Your task to perform on an android device: Open CNN.com Image 0: 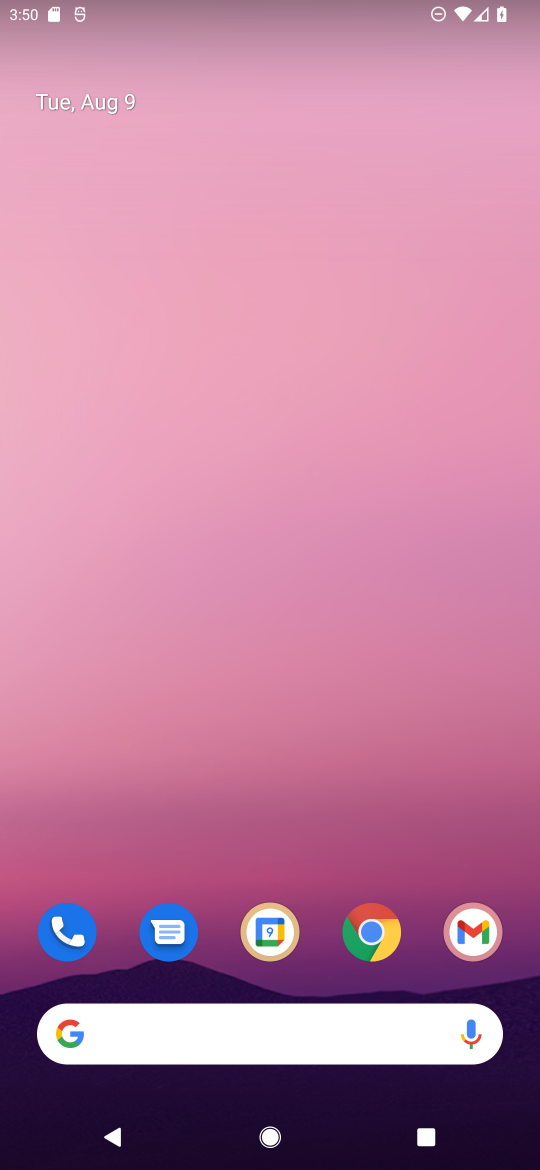
Step 0: click (116, 1016)
Your task to perform on an android device: Open CNN.com Image 1: 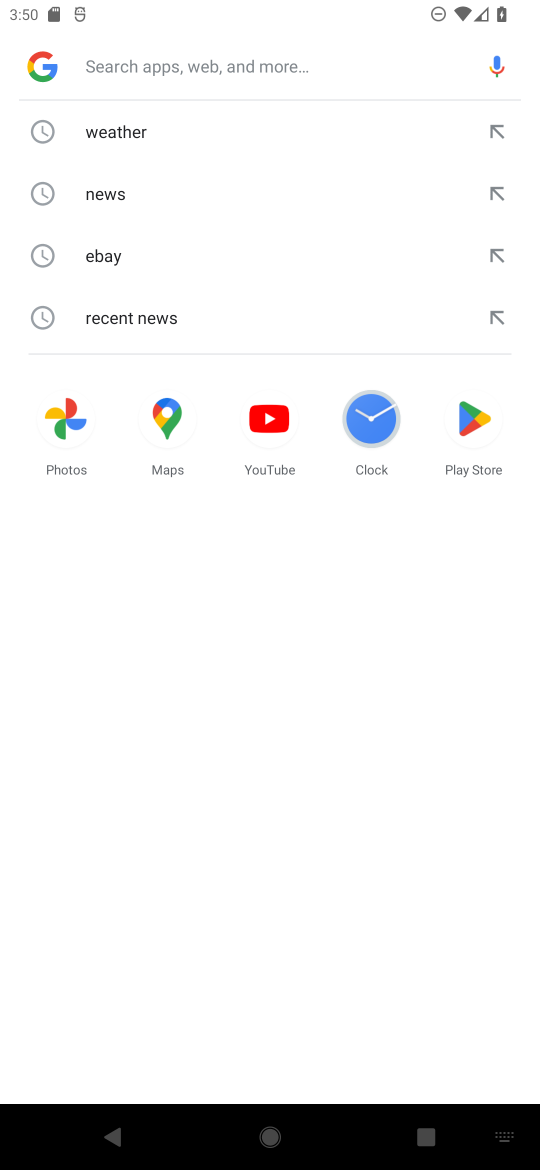
Step 1: type "CNN.com"
Your task to perform on an android device: Open CNN.com Image 2: 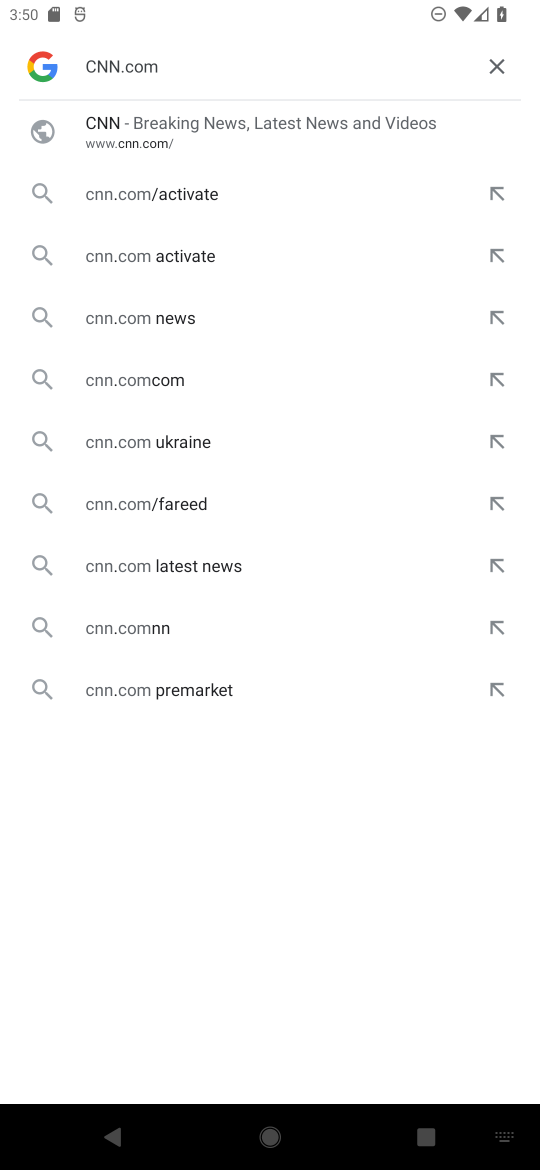
Step 2: click (134, 128)
Your task to perform on an android device: Open CNN.com Image 3: 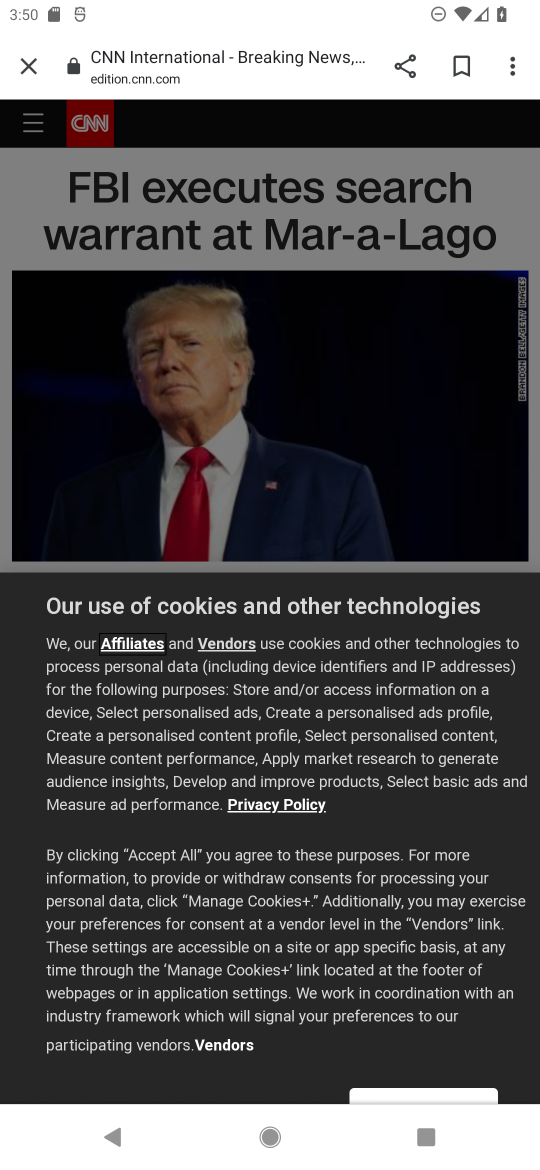
Step 3: task complete